Your task to perform on an android device: Open network settings Image 0: 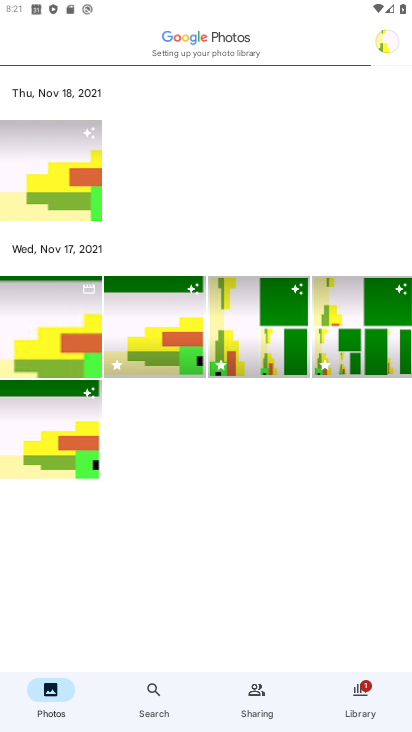
Step 0: press home button
Your task to perform on an android device: Open network settings Image 1: 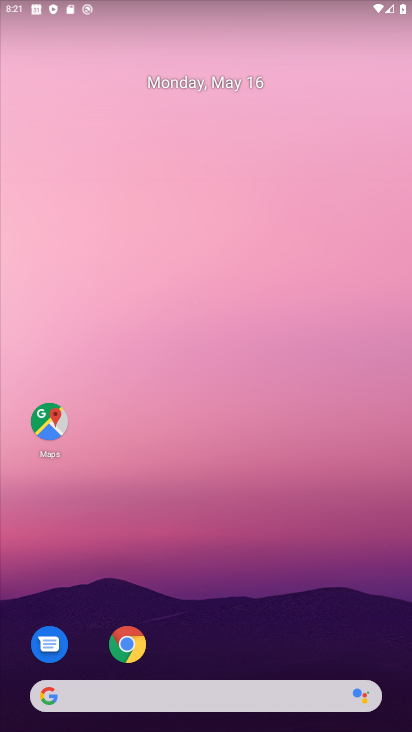
Step 1: drag from (192, 726) to (173, 16)
Your task to perform on an android device: Open network settings Image 2: 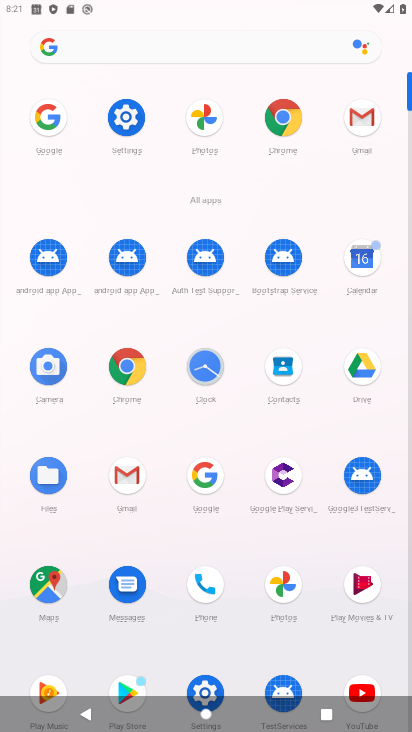
Step 2: click (114, 119)
Your task to perform on an android device: Open network settings Image 3: 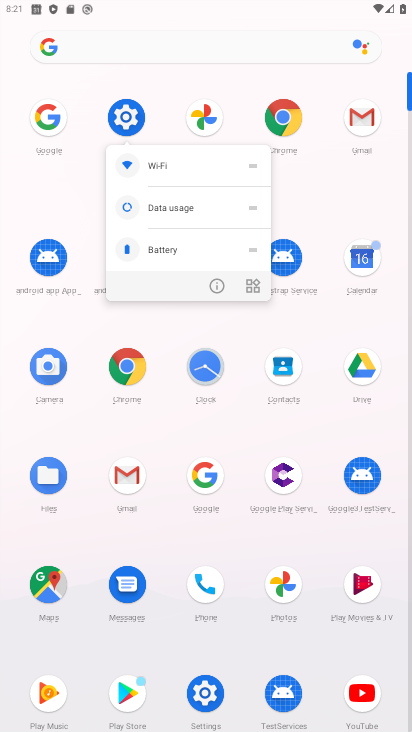
Step 3: click (131, 106)
Your task to perform on an android device: Open network settings Image 4: 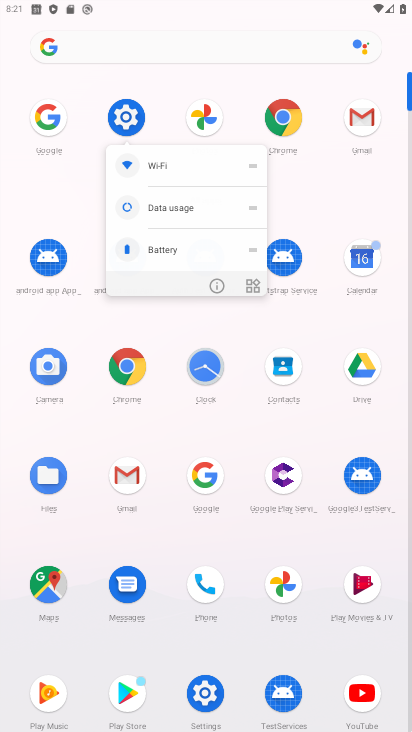
Step 4: click (131, 106)
Your task to perform on an android device: Open network settings Image 5: 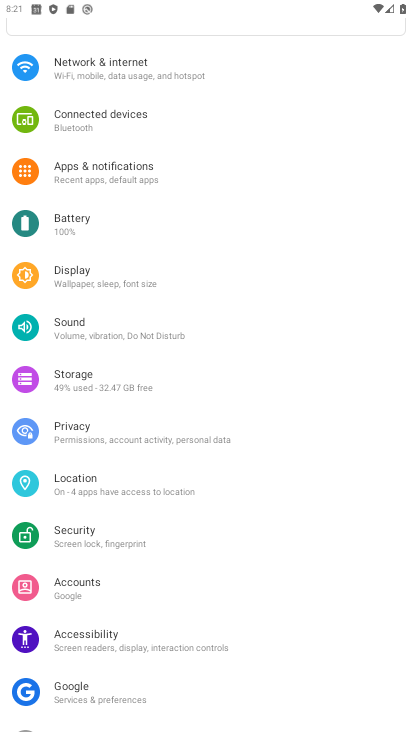
Step 5: click (151, 172)
Your task to perform on an android device: Open network settings Image 6: 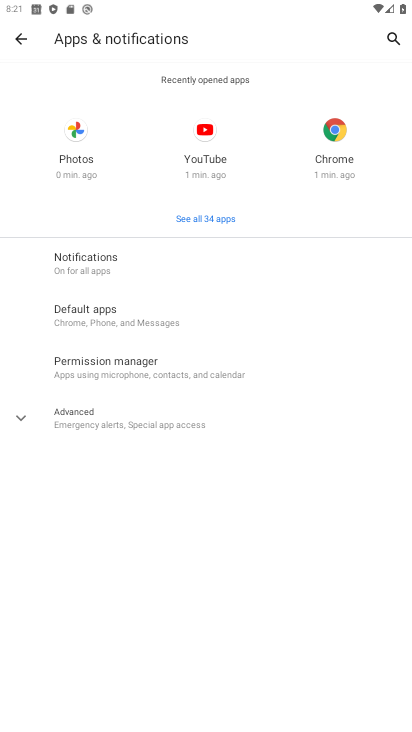
Step 6: press back button
Your task to perform on an android device: Open network settings Image 7: 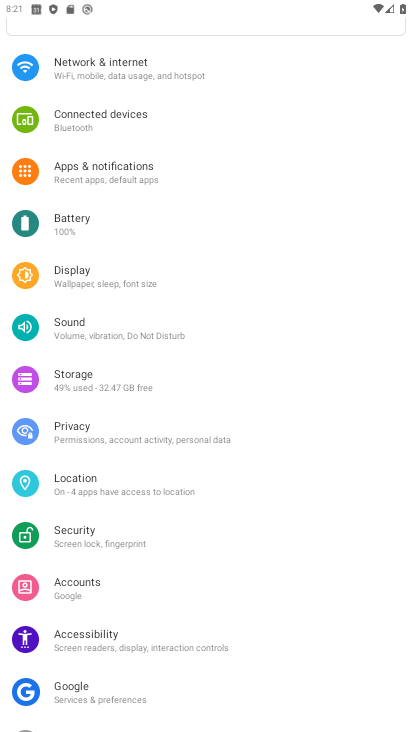
Step 7: click (138, 66)
Your task to perform on an android device: Open network settings Image 8: 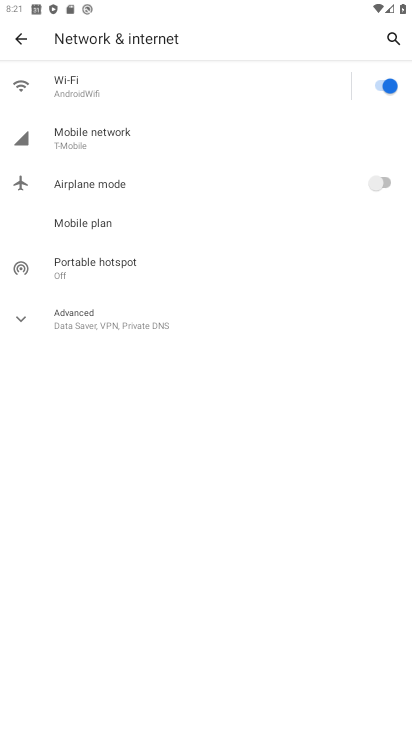
Step 8: task complete